Your task to perform on an android device: Do I have any events today? Image 0: 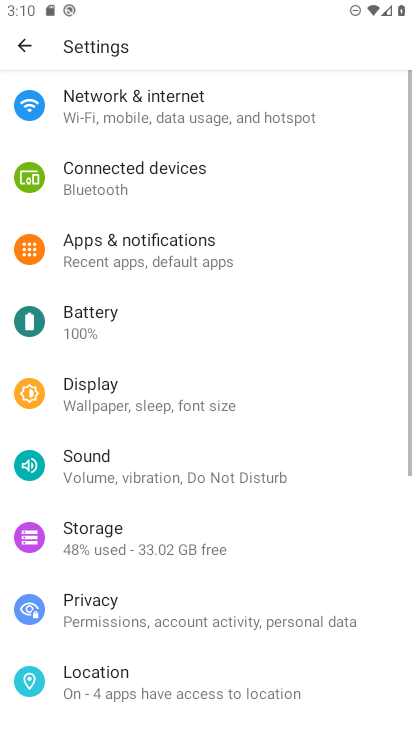
Step 0: press back button
Your task to perform on an android device: Do I have any events today? Image 1: 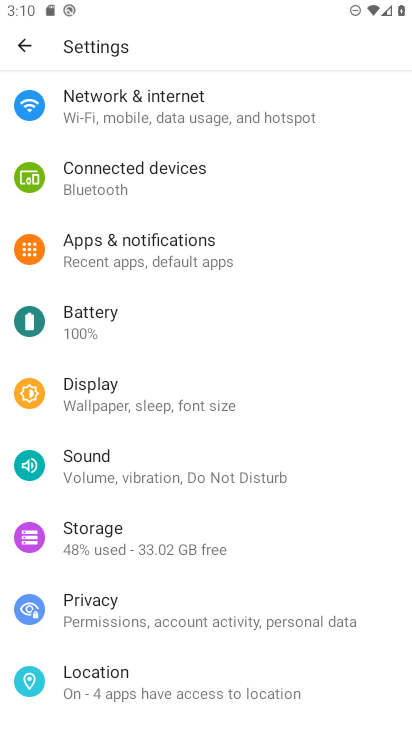
Step 1: press back button
Your task to perform on an android device: Do I have any events today? Image 2: 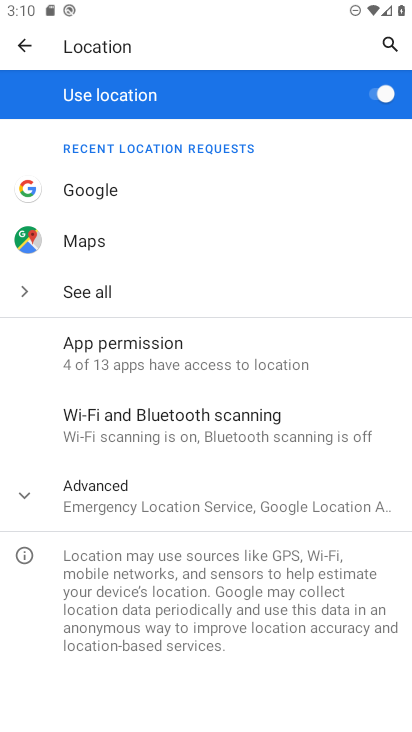
Step 2: press back button
Your task to perform on an android device: Do I have any events today? Image 3: 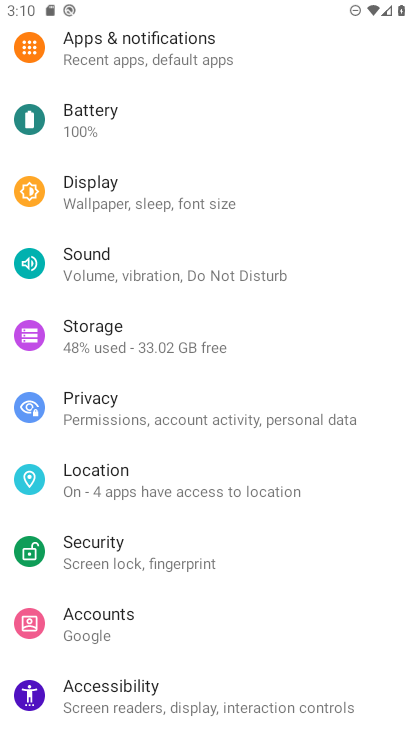
Step 3: press back button
Your task to perform on an android device: Do I have any events today? Image 4: 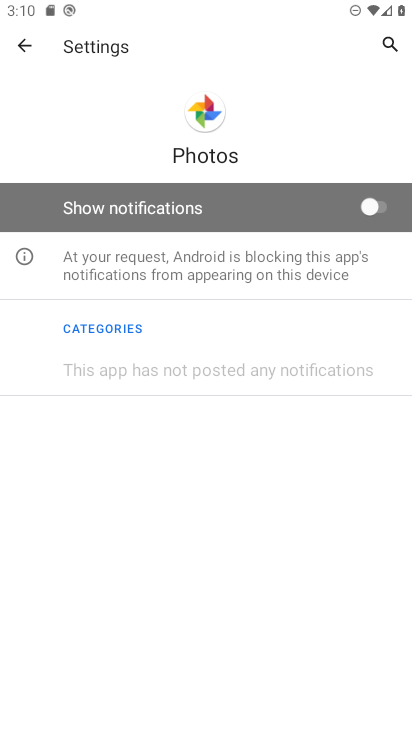
Step 4: press back button
Your task to perform on an android device: Do I have any events today? Image 5: 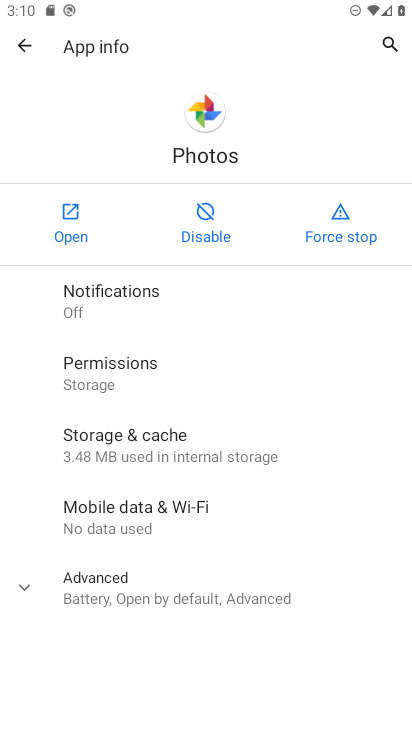
Step 5: press back button
Your task to perform on an android device: Do I have any events today? Image 6: 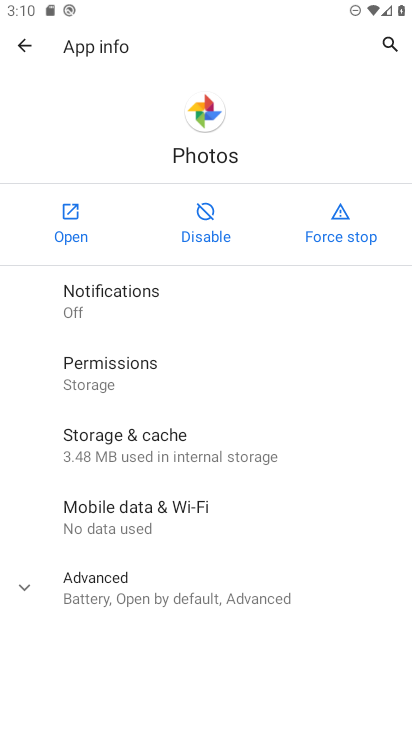
Step 6: press back button
Your task to perform on an android device: Do I have any events today? Image 7: 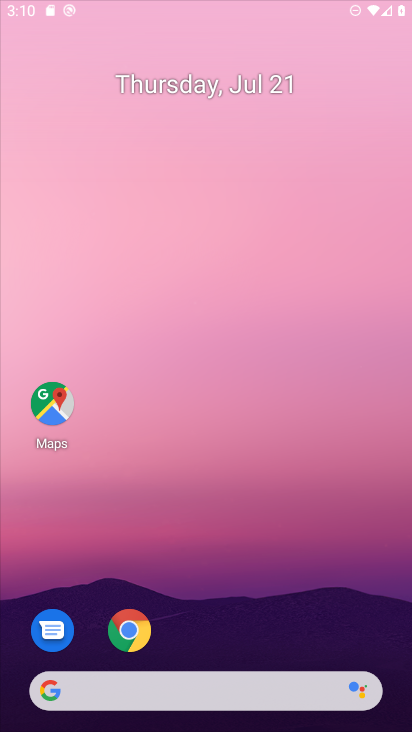
Step 7: press back button
Your task to perform on an android device: Do I have any events today? Image 8: 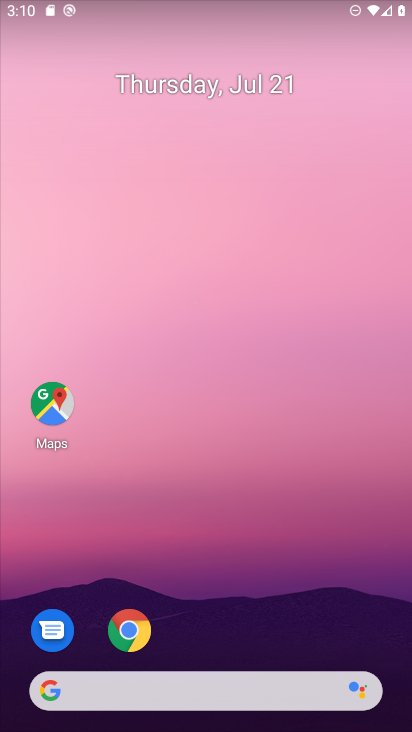
Step 8: drag from (188, 616) to (214, 57)
Your task to perform on an android device: Do I have any events today? Image 9: 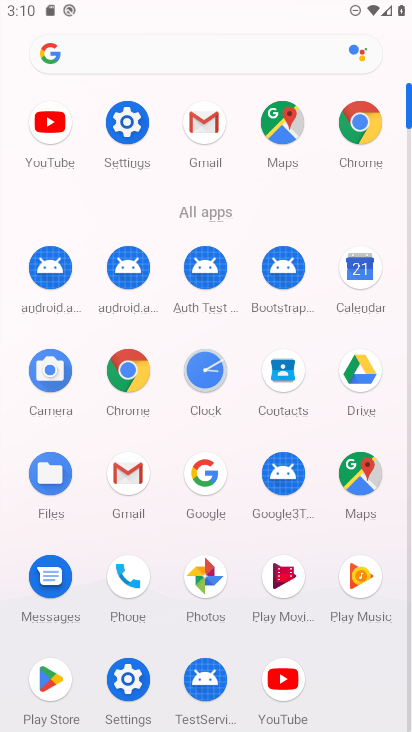
Step 9: click (370, 270)
Your task to perform on an android device: Do I have any events today? Image 10: 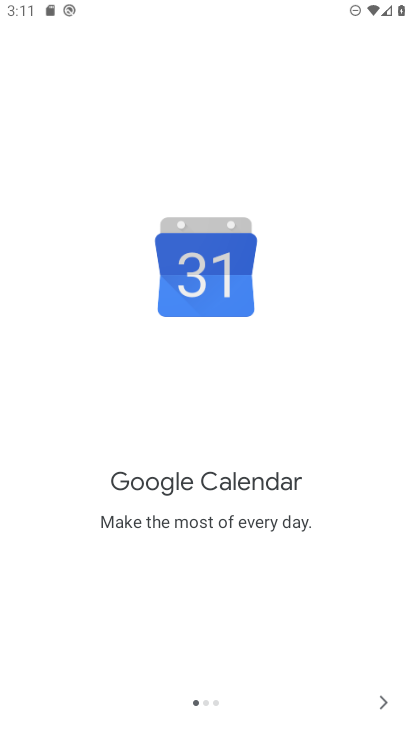
Step 10: click (389, 712)
Your task to perform on an android device: Do I have any events today? Image 11: 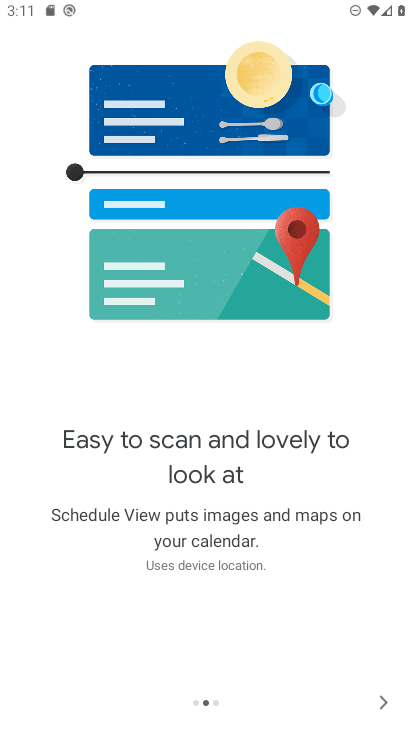
Step 11: click (389, 712)
Your task to perform on an android device: Do I have any events today? Image 12: 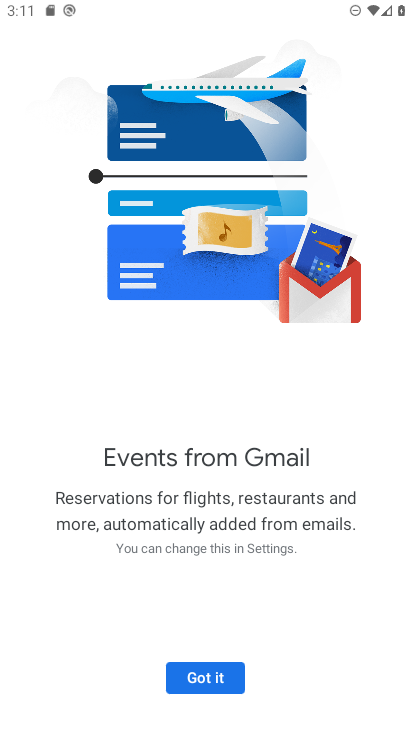
Step 12: click (185, 683)
Your task to perform on an android device: Do I have any events today? Image 13: 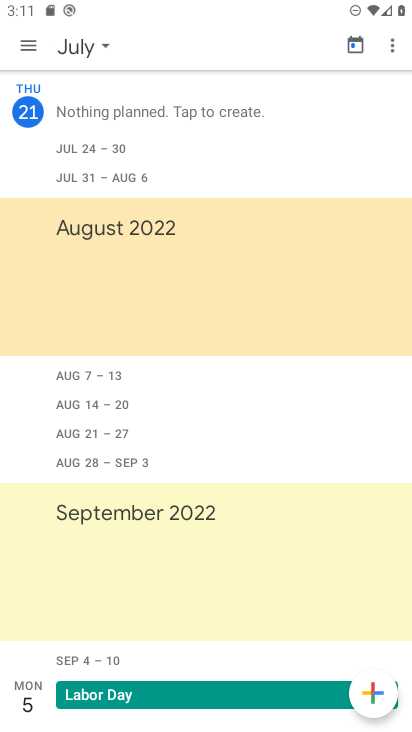
Step 13: task complete